Your task to perform on an android device: Open Reddit.com Image 0: 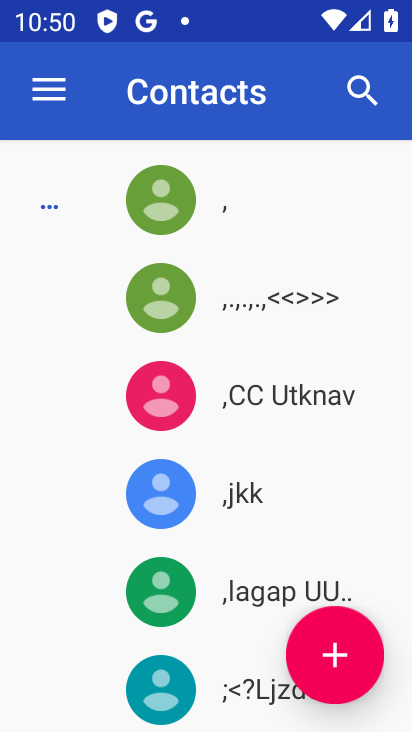
Step 0: press home button
Your task to perform on an android device: Open Reddit.com Image 1: 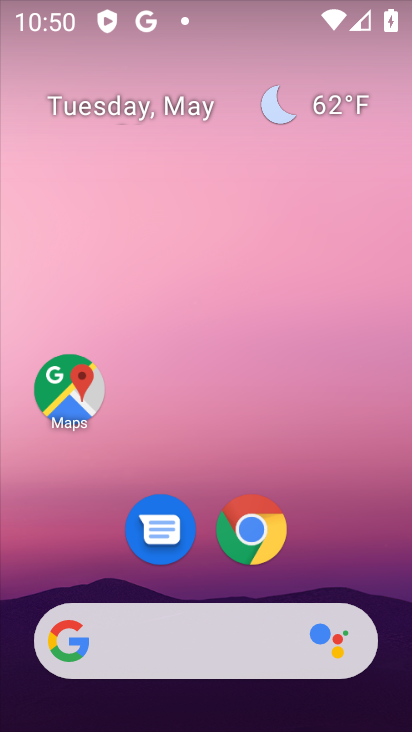
Step 1: click (234, 660)
Your task to perform on an android device: Open Reddit.com Image 2: 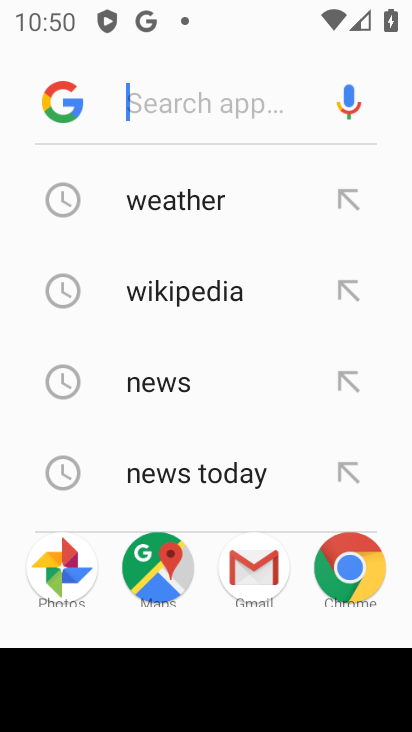
Step 2: type "reddit.com"
Your task to perform on an android device: Open Reddit.com Image 3: 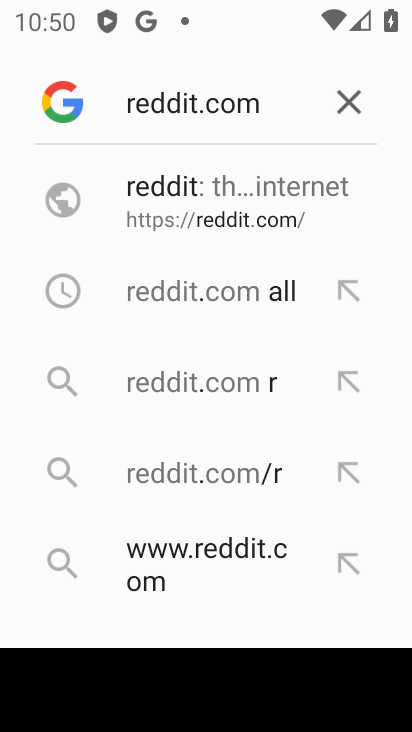
Step 3: click (175, 210)
Your task to perform on an android device: Open Reddit.com Image 4: 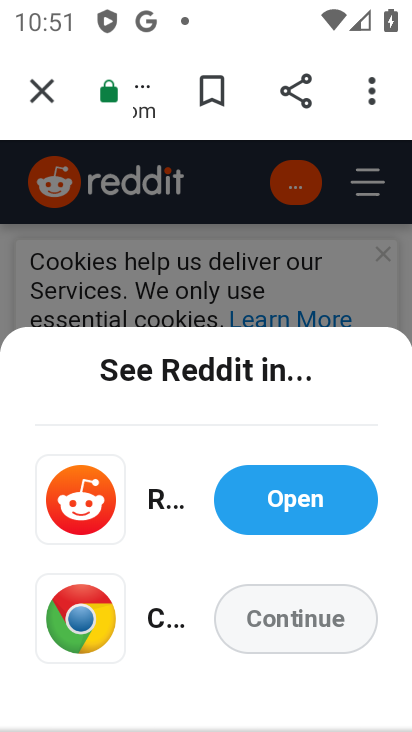
Step 4: click (280, 615)
Your task to perform on an android device: Open Reddit.com Image 5: 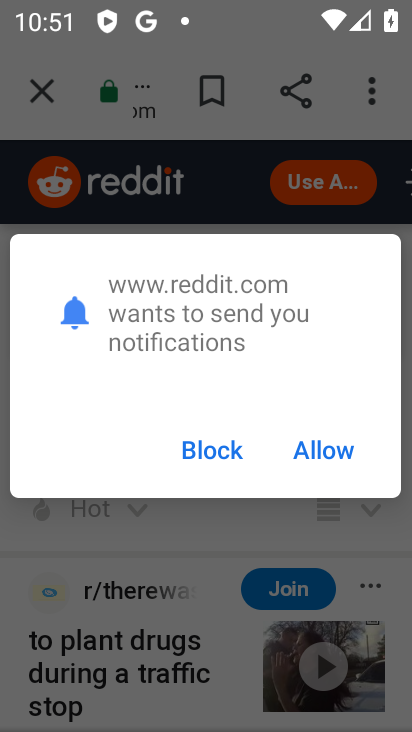
Step 5: click (216, 456)
Your task to perform on an android device: Open Reddit.com Image 6: 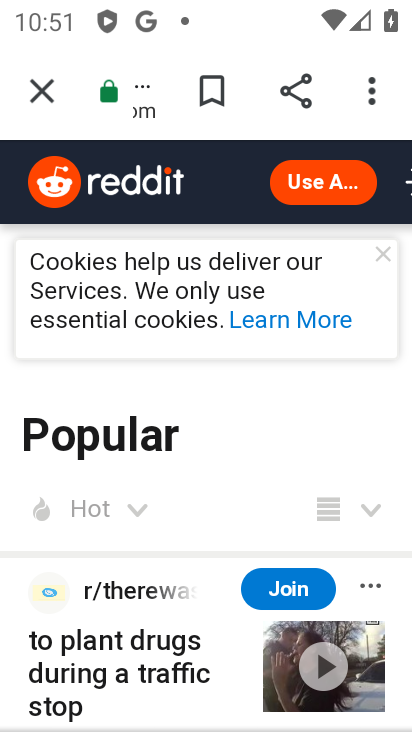
Step 6: task complete